Your task to perform on an android device: open app "NewsBreak: Local News & Alerts" (install if not already installed), go to login, and select forgot password Image 0: 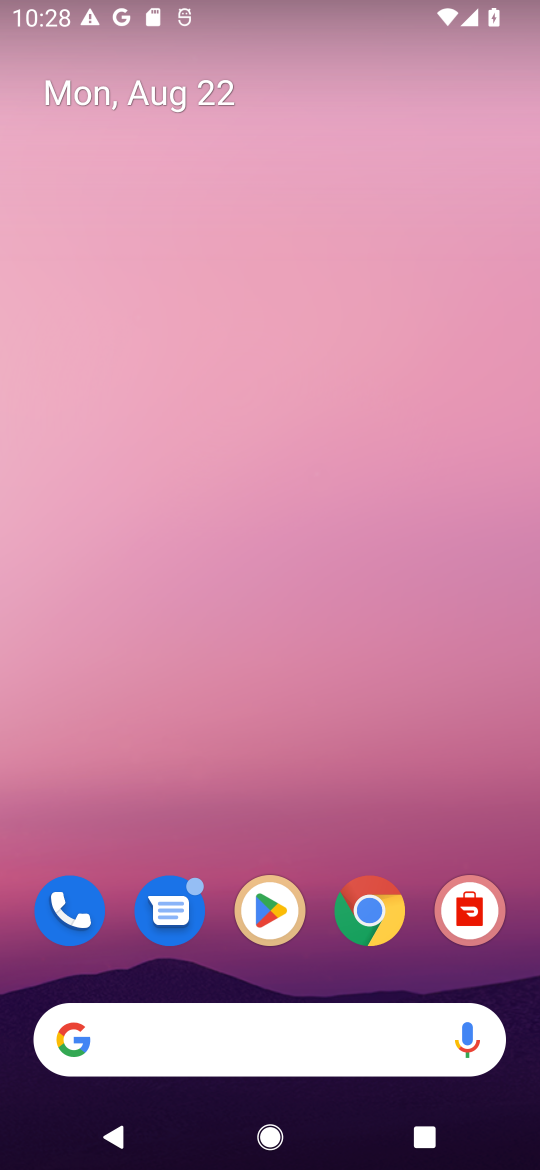
Step 0: click (274, 923)
Your task to perform on an android device: open app "NewsBreak: Local News & Alerts" (install if not already installed), go to login, and select forgot password Image 1: 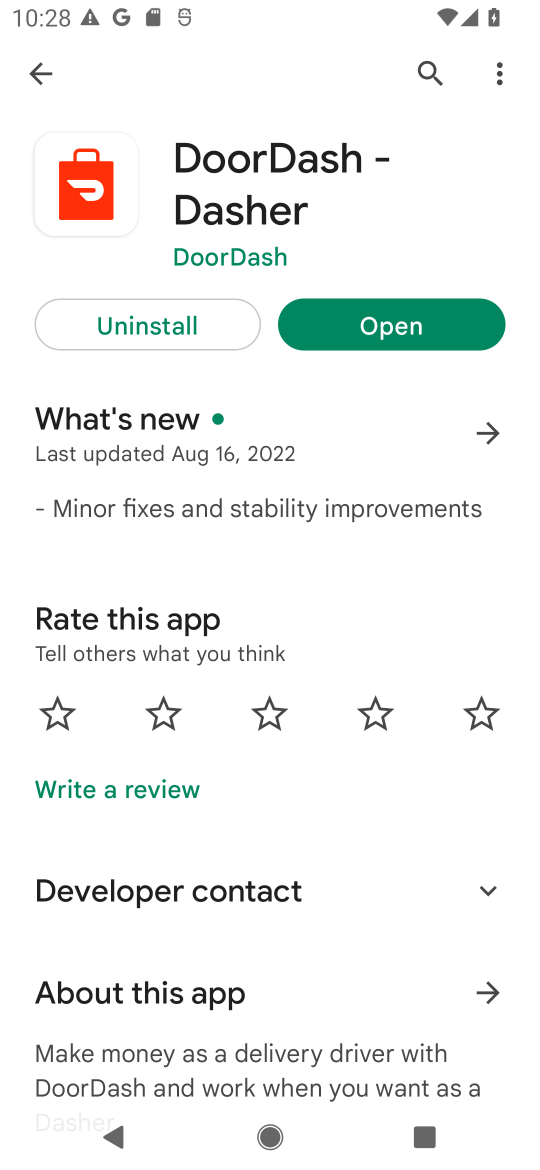
Step 1: click (431, 67)
Your task to perform on an android device: open app "NewsBreak: Local News & Alerts" (install if not already installed), go to login, and select forgot password Image 2: 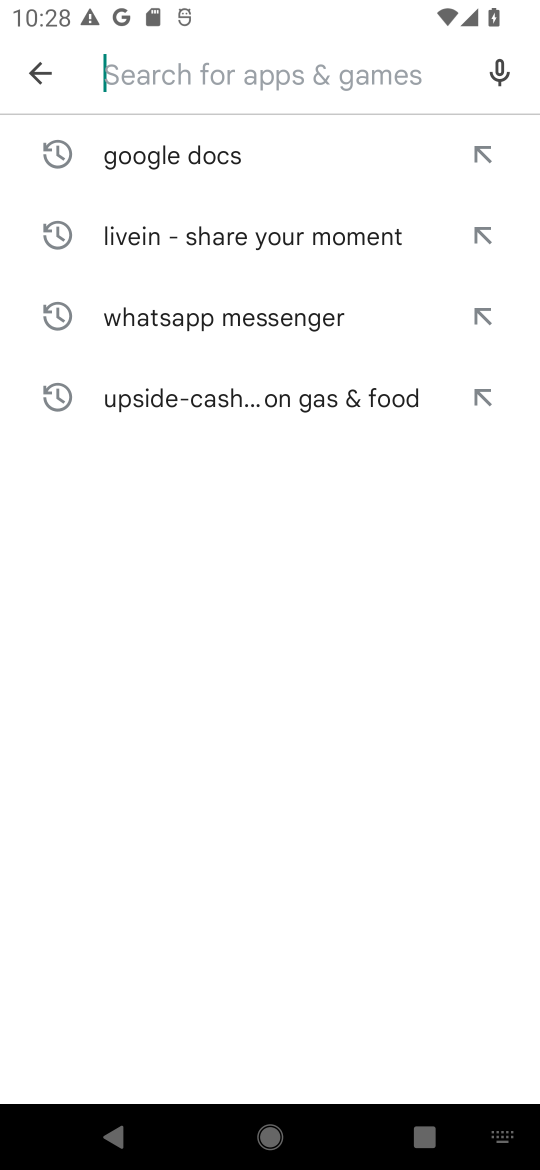
Step 2: type "NewsBreak: Local News & Alerts"
Your task to perform on an android device: open app "NewsBreak: Local News & Alerts" (install if not already installed), go to login, and select forgot password Image 3: 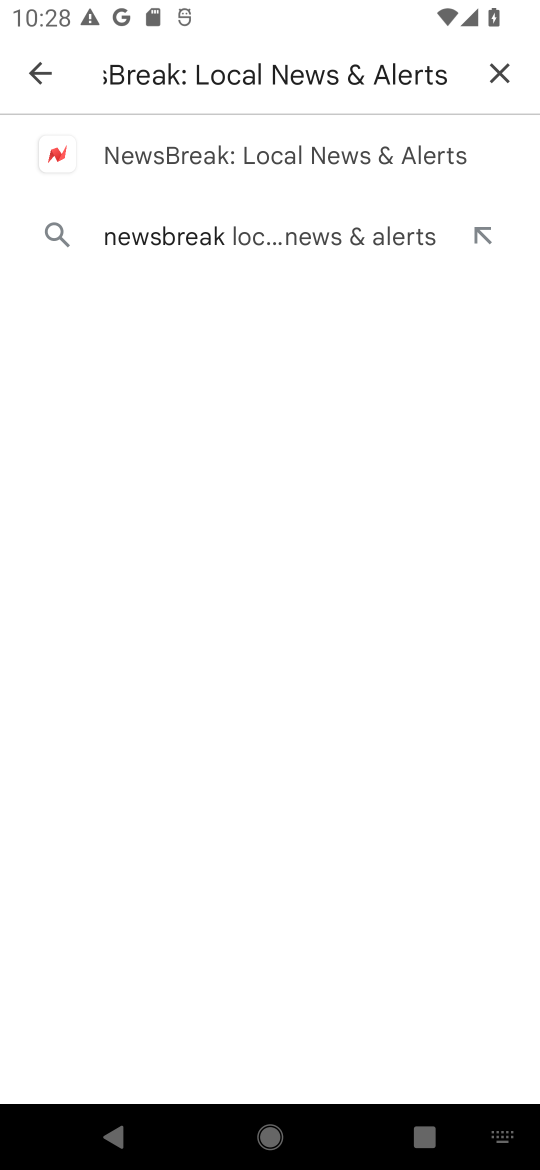
Step 3: click (199, 163)
Your task to perform on an android device: open app "NewsBreak: Local News & Alerts" (install if not already installed), go to login, and select forgot password Image 4: 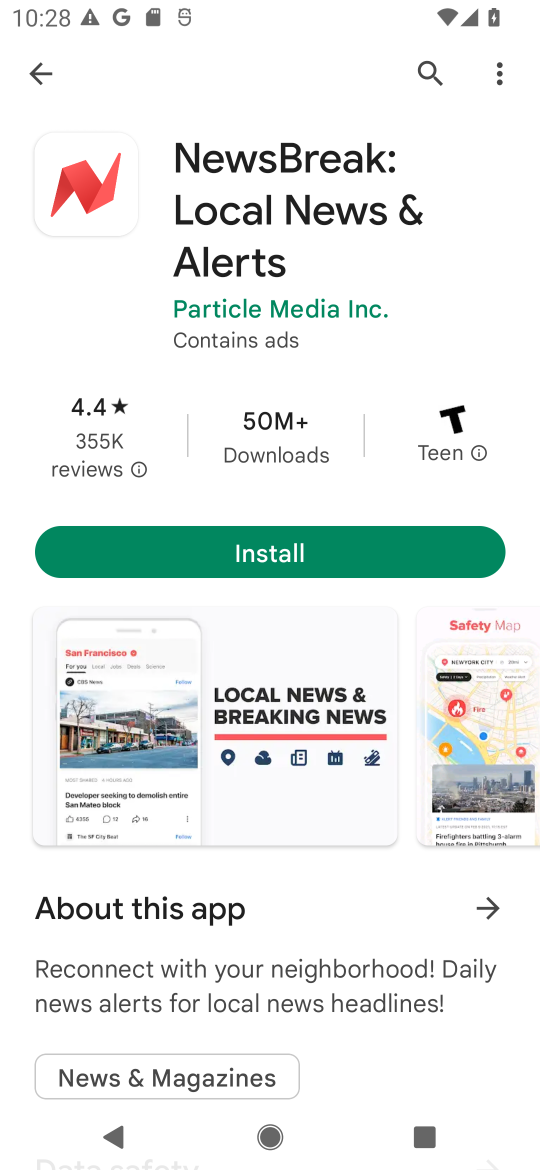
Step 4: click (342, 541)
Your task to perform on an android device: open app "NewsBreak: Local News & Alerts" (install if not already installed), go to login, and select forgot password Image 5: 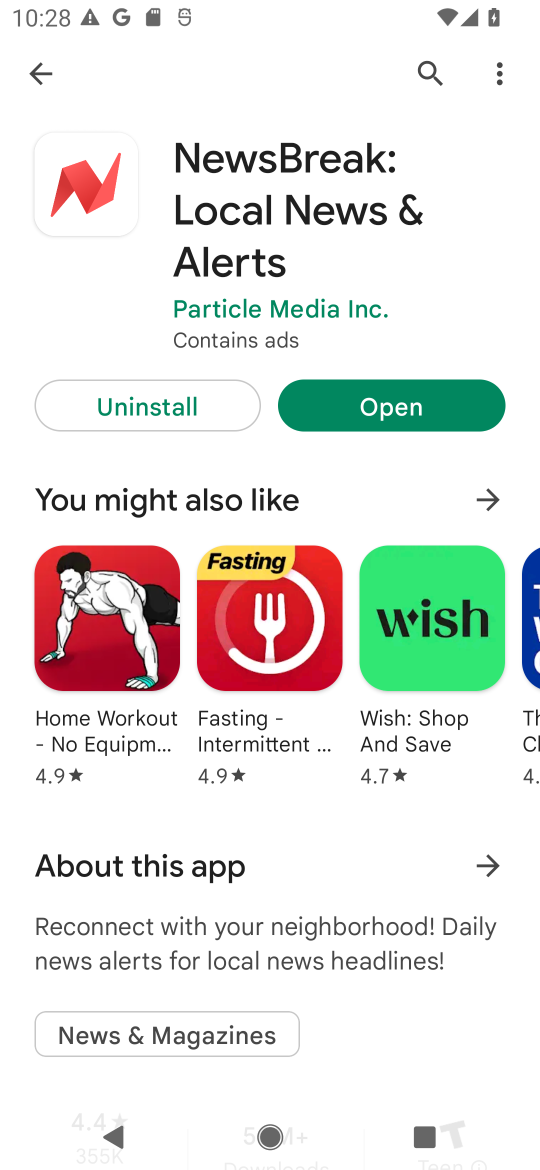
Step 5: click (344, 407)
Your task to perform on an android device: open app "NewsBreak: Local News & Alerts" (install if not already installed), go to login, and select forgot password Image 6: 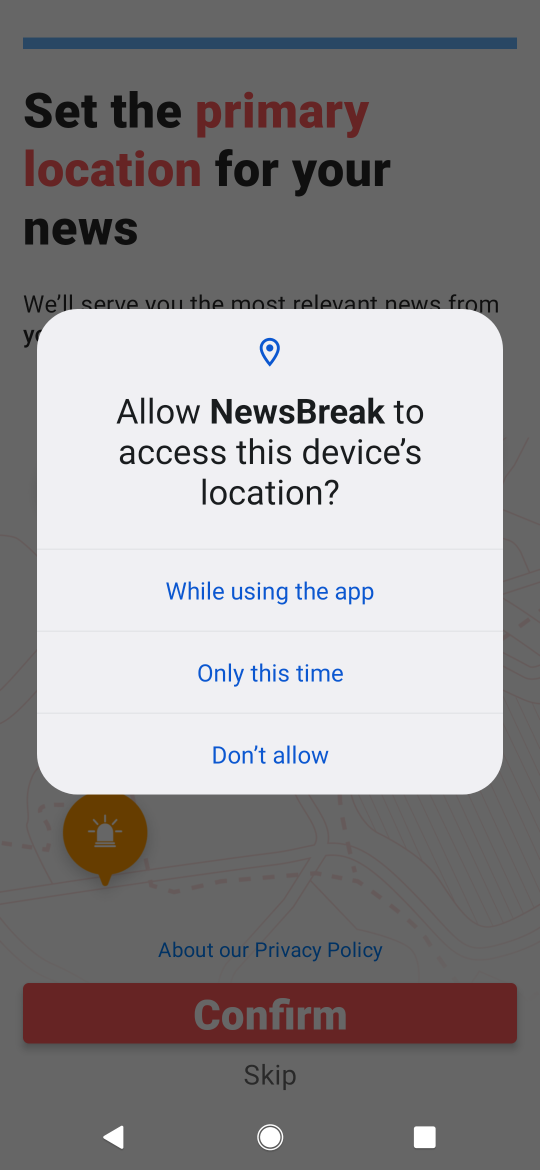
Step 6: press home button
Your task to perform on an android device: open app "NewsBreak: Local News & Alerts" (install if not already installed), go to login, and select forgot password Image 7: 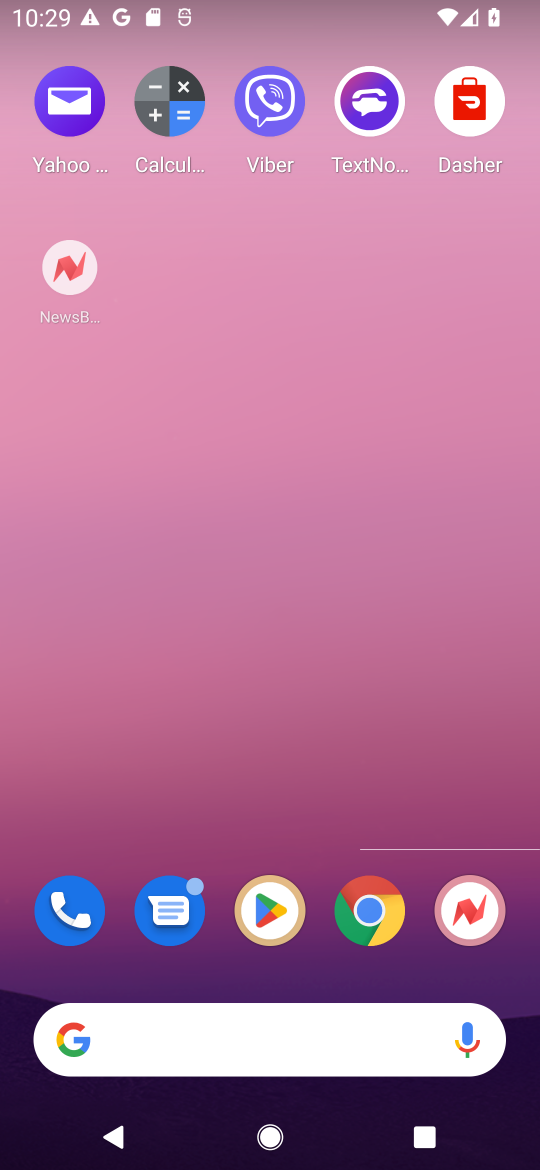
Step 7: click (276, 904)
Your task to perform on an android device: open app "NewsBreak: Local News & Alerts" (install if not already installed), go to login, and select forgot password Image 8: 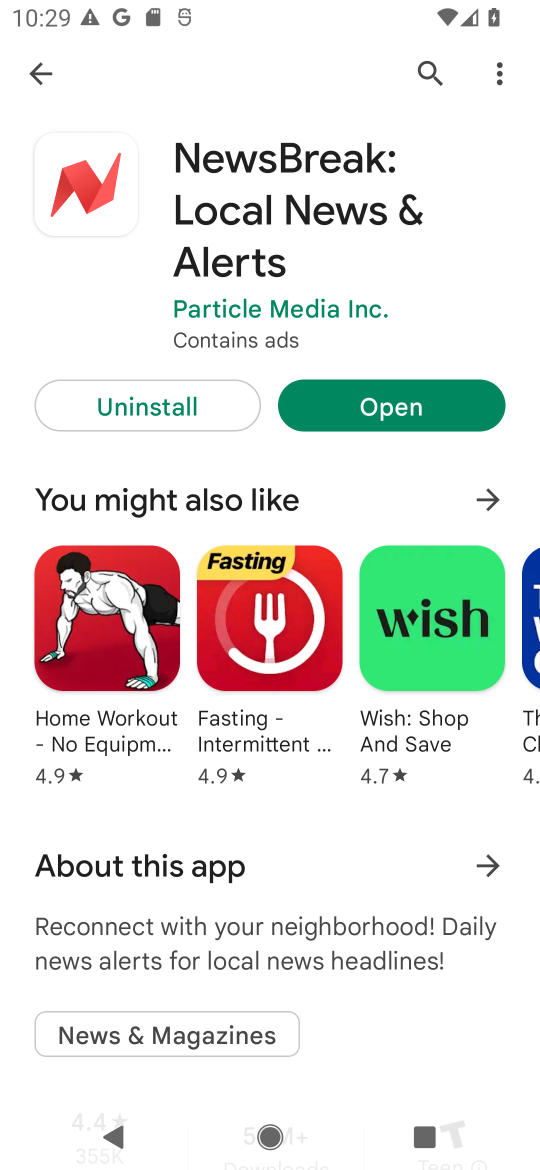
Step 8: click (414, 66)
Your task to perform on an android device: open app "NewsBreak: Local News & Alerts" (install if not already installed), go to login, and select forgot password Image 9: 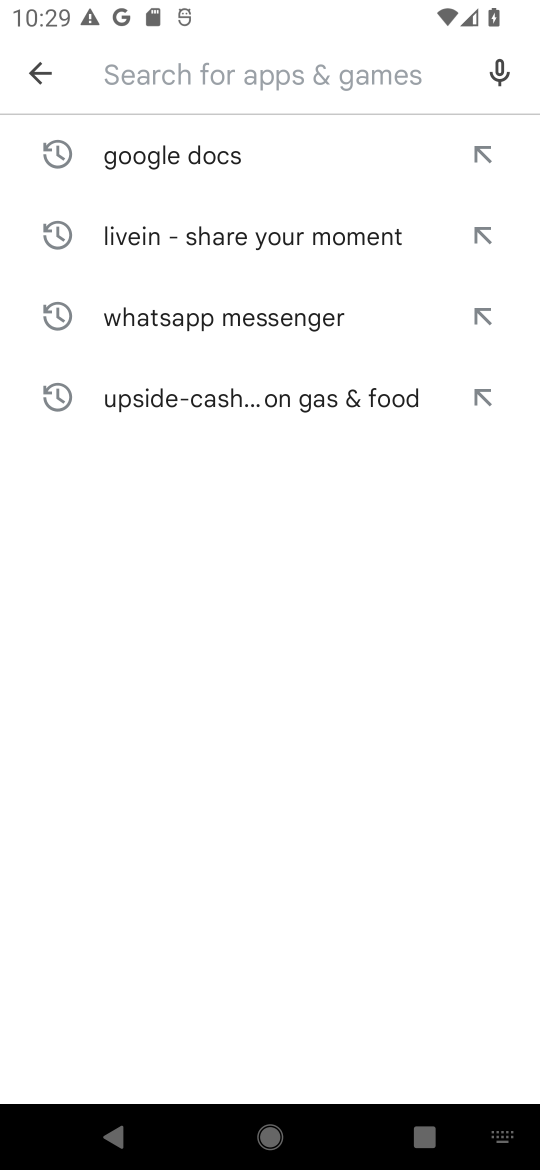
Step 9: type "NewsBreak: Local News & Alerts"
Your task to perform on an android device: open app "NewsBreak: Local News & Alerts" (install if not already installed), go to login, and select forgot password Image 10: 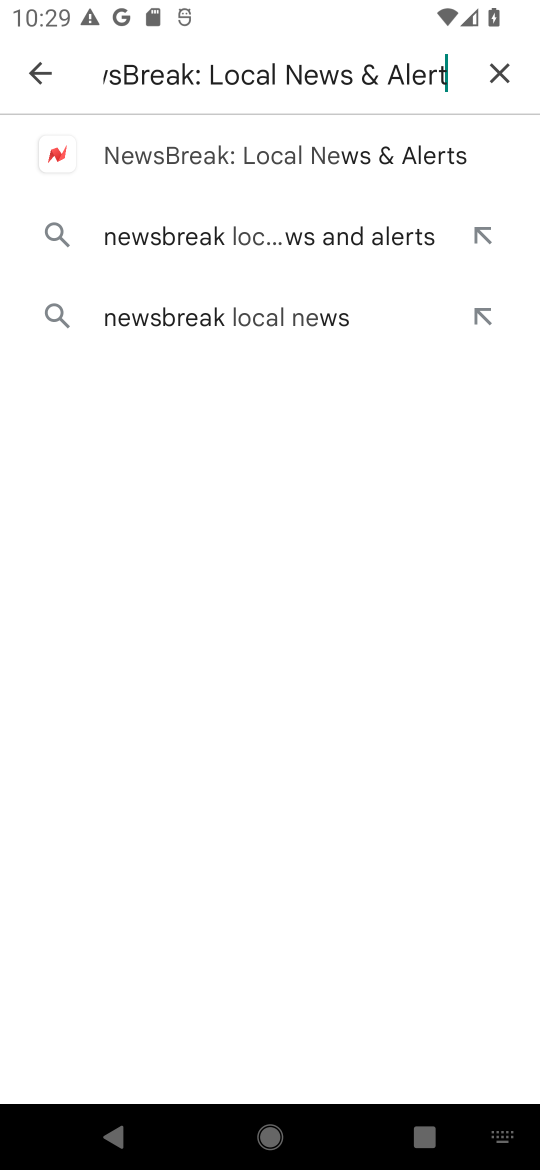
Step 10: type ""
Your task to perform on an android device: open app "NewsBreak: Local News & Alerts" (install if not already installed), go to login, and select forgot password Image 11: 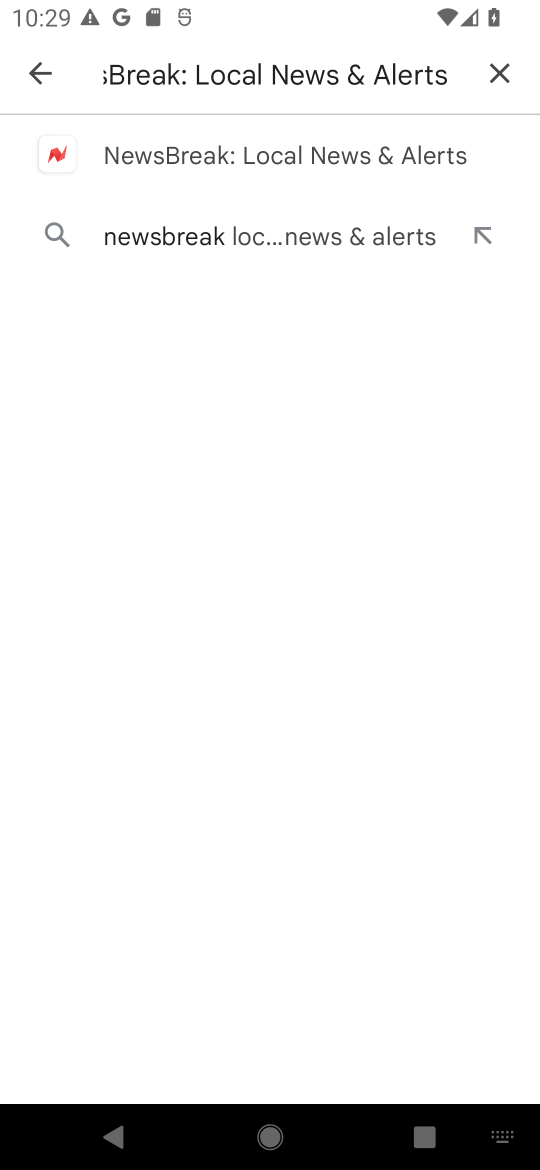
Step 11: click (177, 176)
Your task to perform on an android device: open app "NewsBreak: Local News & Alerts" (install if not already installed), go to login, and select forgot password Image 12: 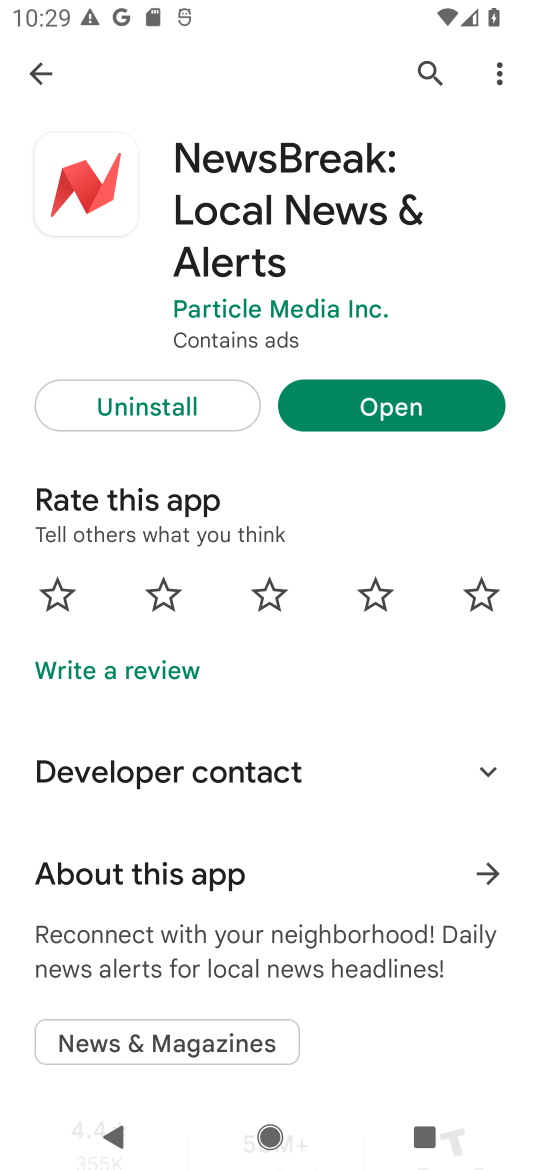
Step 12: click (332, 412)
Your task to perform on an android device: open app "NewsBreak: Local News & Alerts" (install if not already installed), go to login, and select forgot password Image 13: 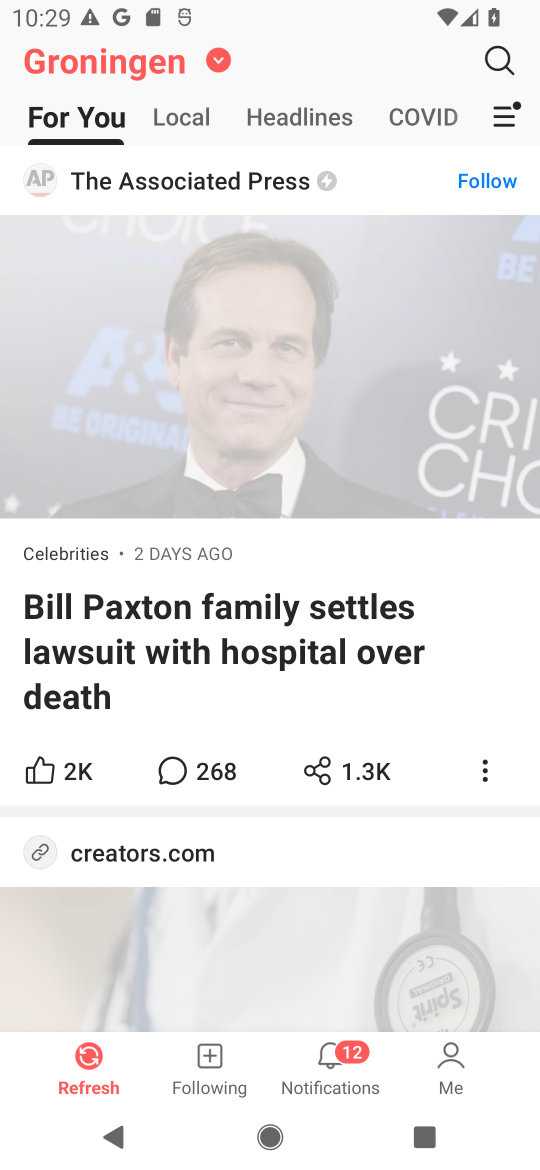
Step 13: task complete